Your task to perform on an android device: See recent photos Image 0: 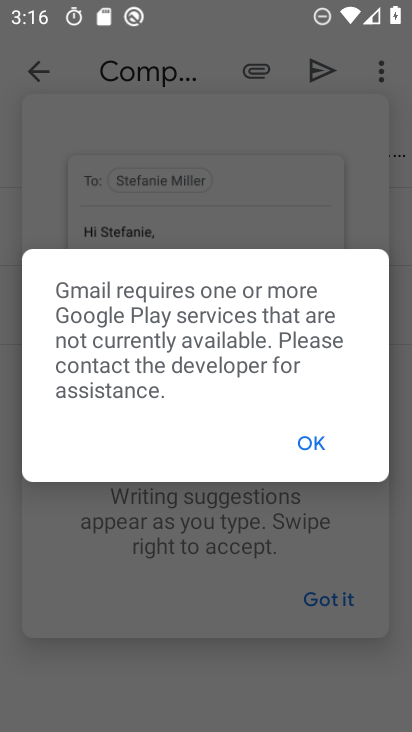
Step 0: press home button
Your task to perform on an android device: See recent photos Image 1: 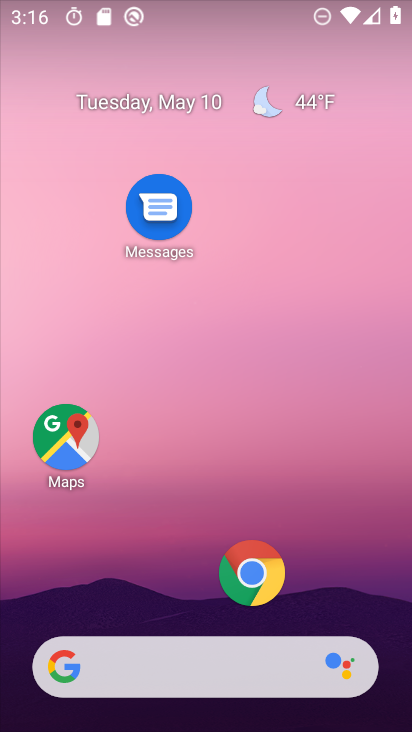
Step 1: drag from (197, 626) to (205, 269)
Your task to perform on an android device: See recent photos Image 2: 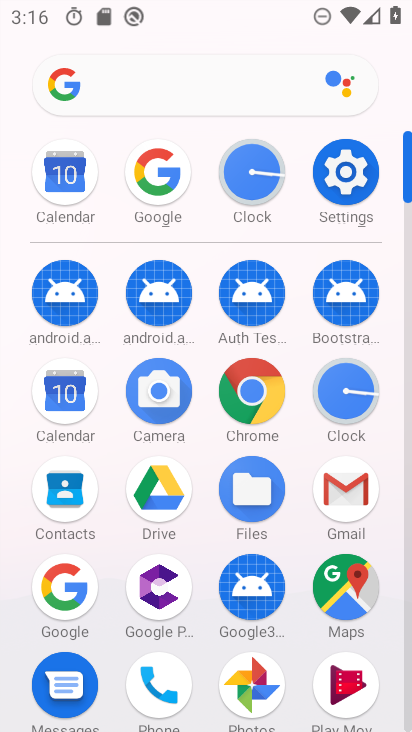
Step 2: drag from (123, 615) to (187, 280)
Your task to perform on an android device: See recent photos Image 3: 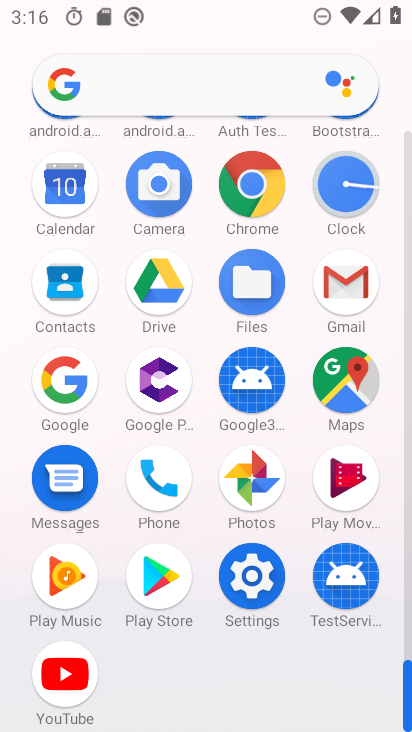
Step 3: click (240, 483)
Your task to perform on an android device: See recent photos Image 4: 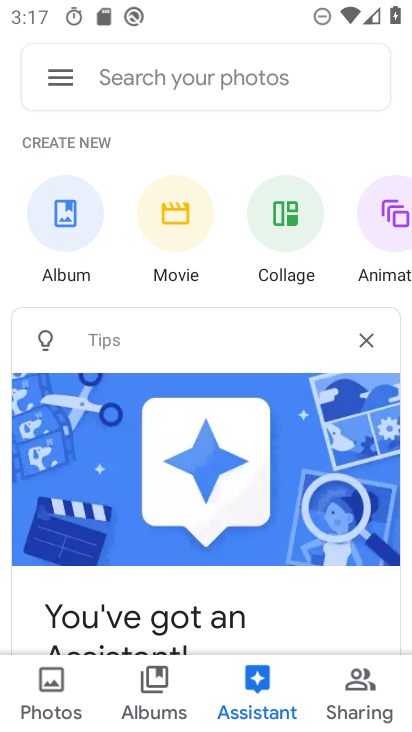
Step 4: click (56, 688)
Your task to perform on an android device: See recent photos Image 5: 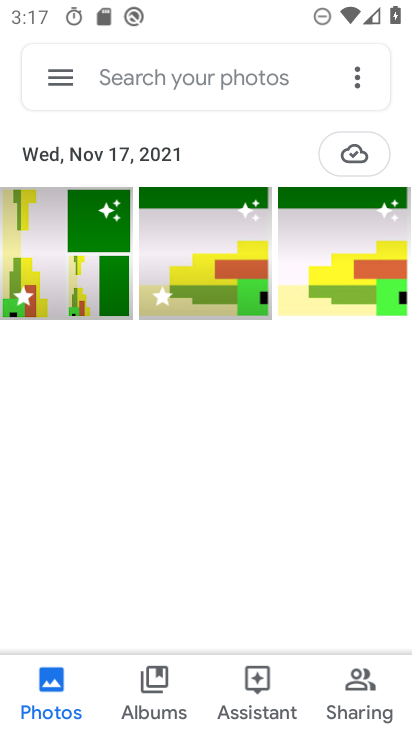
Step 5: click (218, 435)
Your task to perform on an android device: See recent photos Image 6: 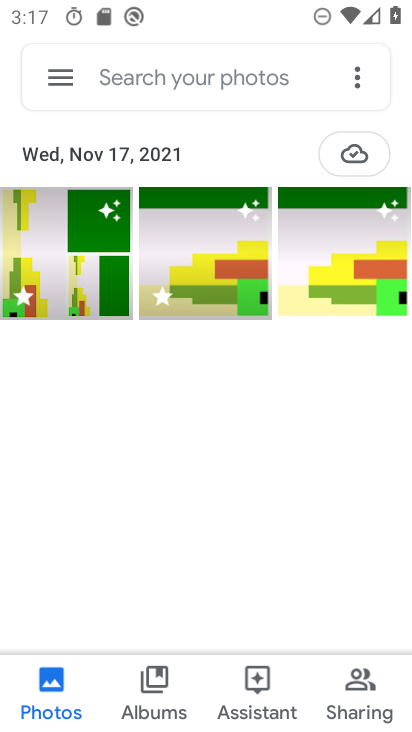
Step 6: task complete